Your task to perform on an android device: turn on showing notifications on the lock screen Image 0: 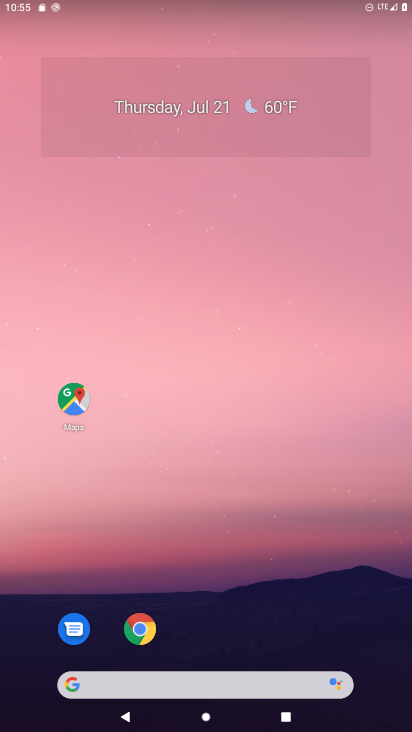
Step 0: press home button
Your task to perform on an android device: turn on showing notifications on the lock screen Image 1: 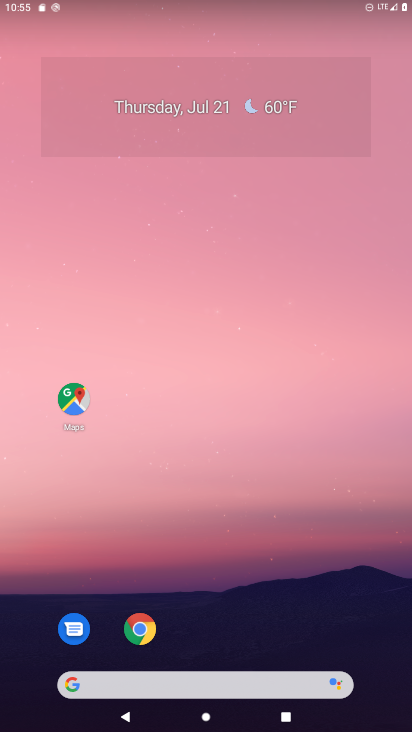
Step 1: drag from (227, 606) to (238, 98)
Your task to perform on an android device: turn on showing notifications on the lock screen Image 2: 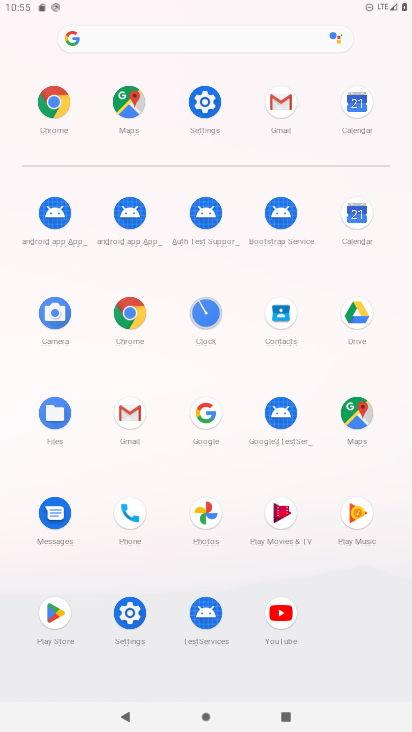
Step 2: click (209, 102)
Your task to perform on an android device: turn on showing notifications on the lock screen Image 3: 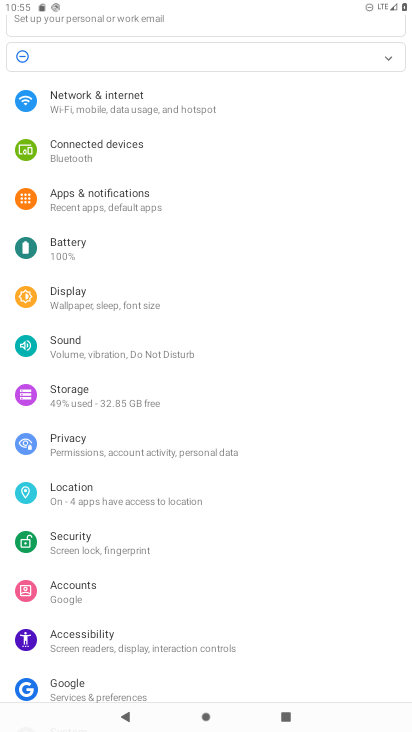
Step 3: click (106, 198)
Your task to perform on an android device: turn on showing notifications on the lock screen Image 4: 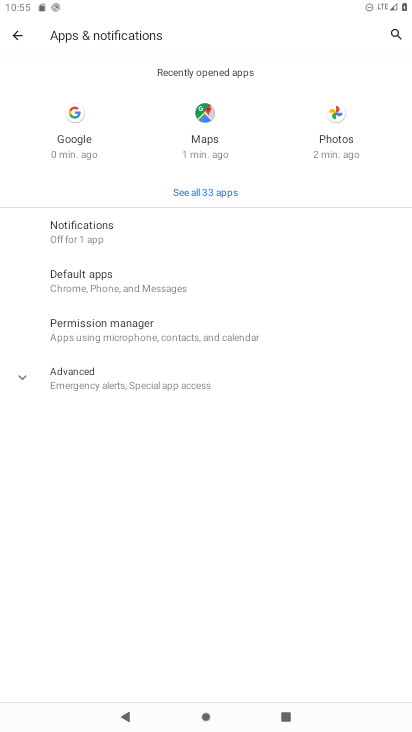
Step 4: click (102, 229)
Your task to perform on an android device: turn on showing notifications on the lock screen Image 5: 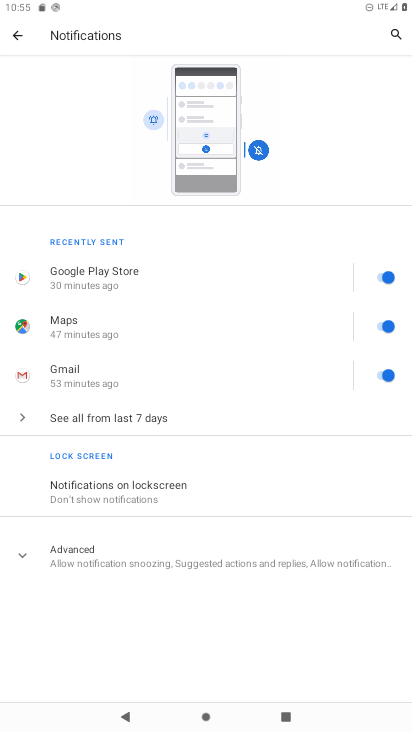
Step 5: click (90, 488)
Your task to perform on an android device: turn on showing notifications on the lock screen Image 6: 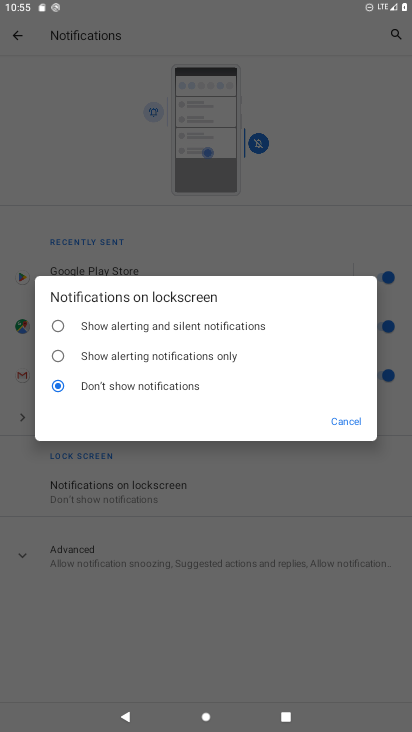
Step 6: click (54, 325)
Your task to perform on an android device: turn on showing notifications on the lock screen Image 7: 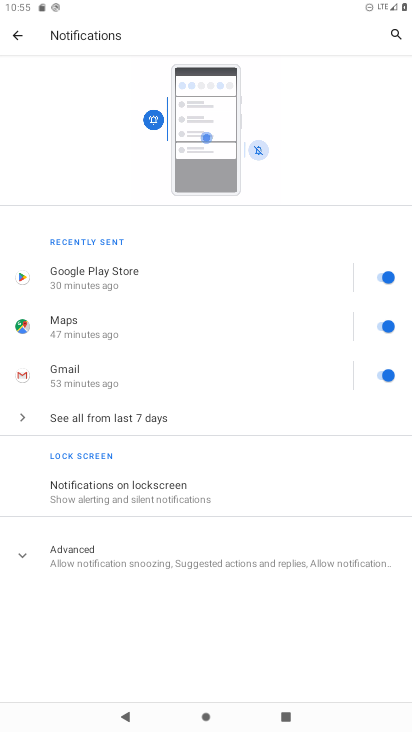
Step 7: task complete